Your task to perform on an android device: Go to Yahoo.com Image 0: 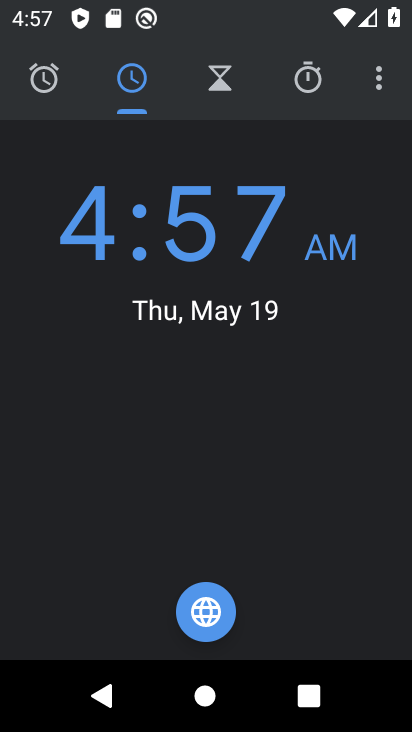
Step 0: press home button
Your task to perform on an android device: Go to Yahoo.com Image 1: 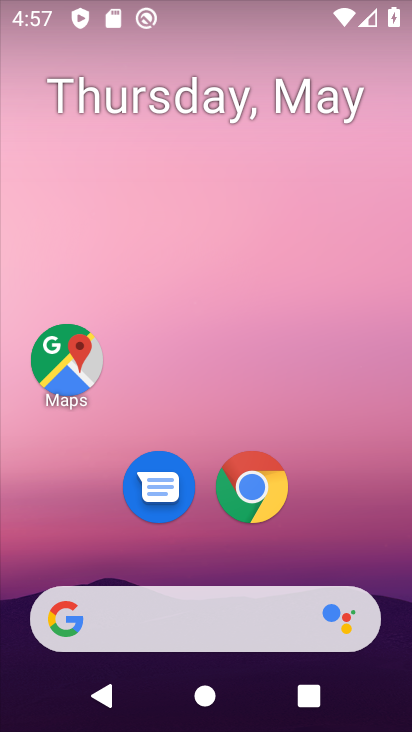
Step 1: click (249, 621)
Your task to perform on an android device: Go to Yahoo.com Image 2: 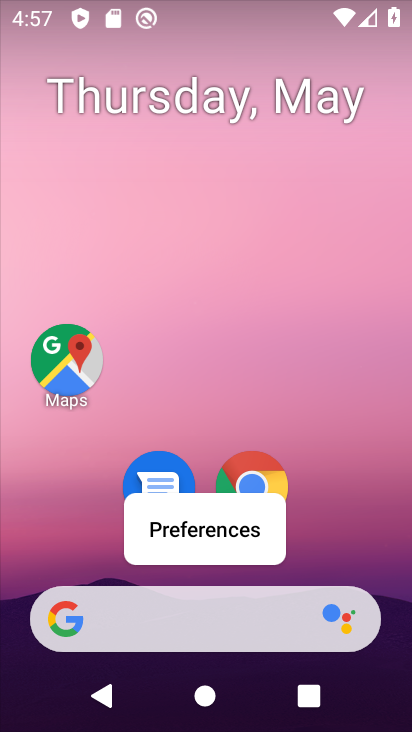
Step 2: click (249, 620)
Your task to perform on an android device: Go to Yahoo.com Image 3: 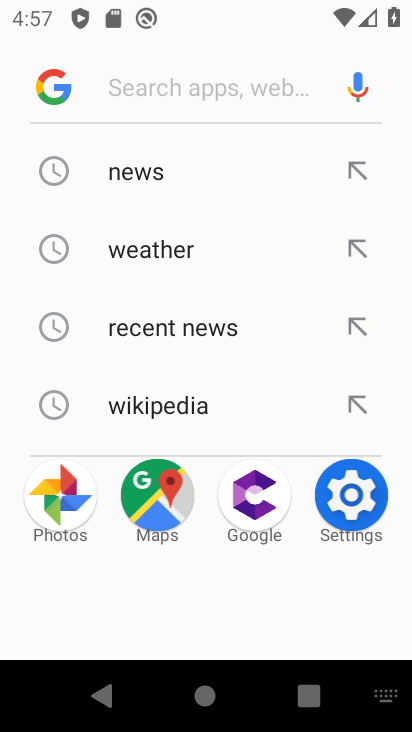
Step 3: type "yahoo.com"
Your task to perform on an android device: Go to Yahoo.com Image 4: 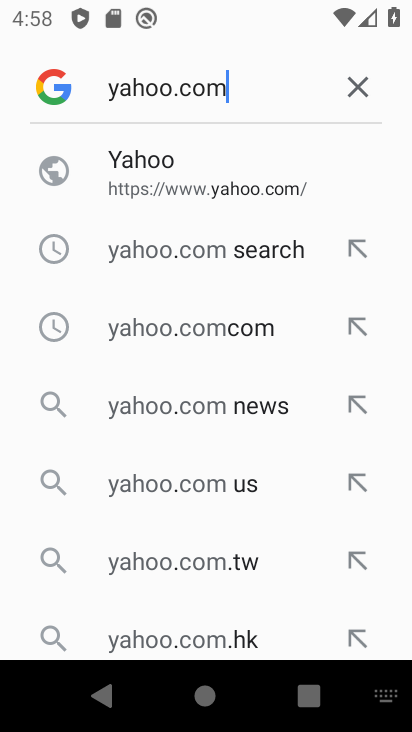
Step 4: click (158, 161)
Your task to perform on an android device: Go to Yahoo.com Image 5: 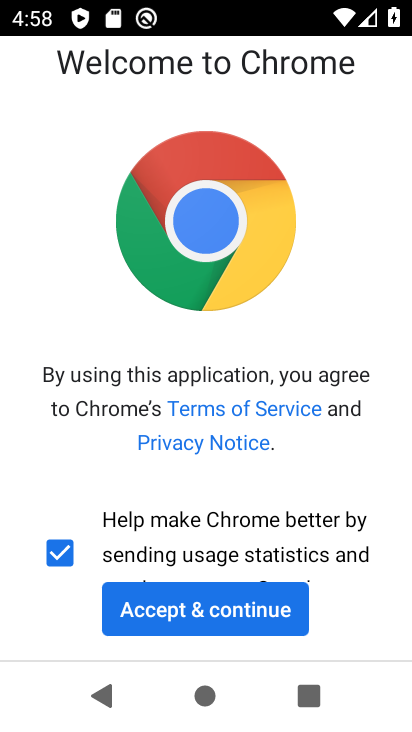
Step 5: click (271, 610)
Your task to perform on an android device: Go to Yahoo.com Image 6: 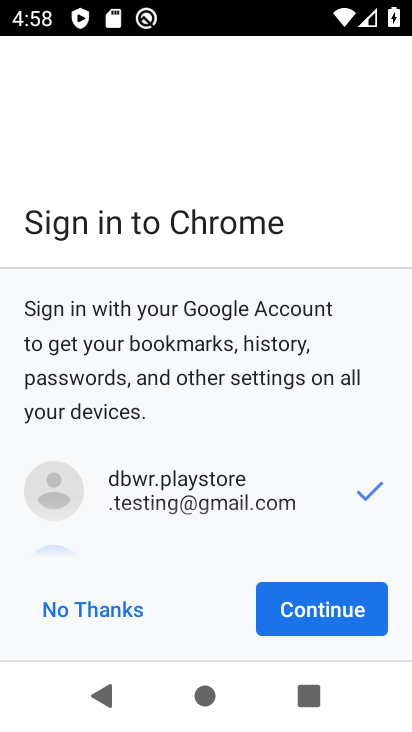
Step 6: click (297, 615)
Your task to perform on an android device: Go to Yahoo.com Image 7: 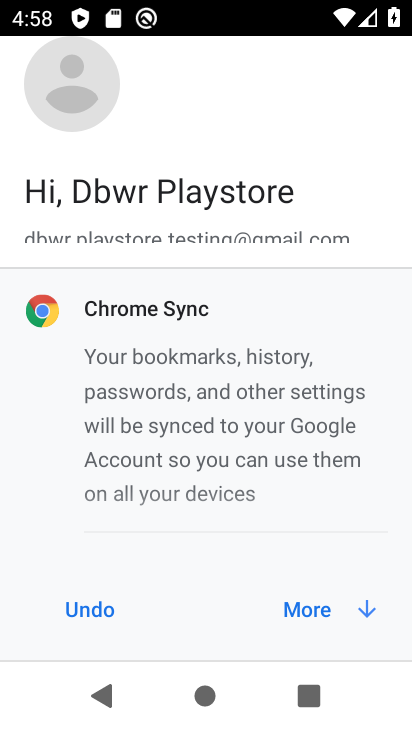
Step 7: click (311, 604)
Your task to perform on an android device: Go to Yahoo.com Image 8: 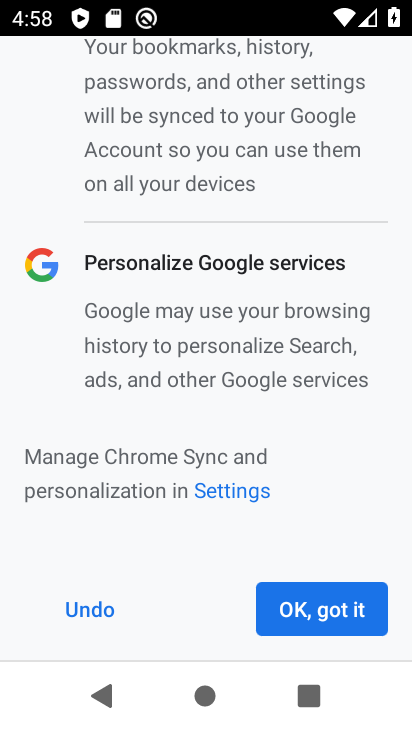
Step 8: click (313, 607)
Your task to perform on an android device: Go to Yahoo.com Image 9: 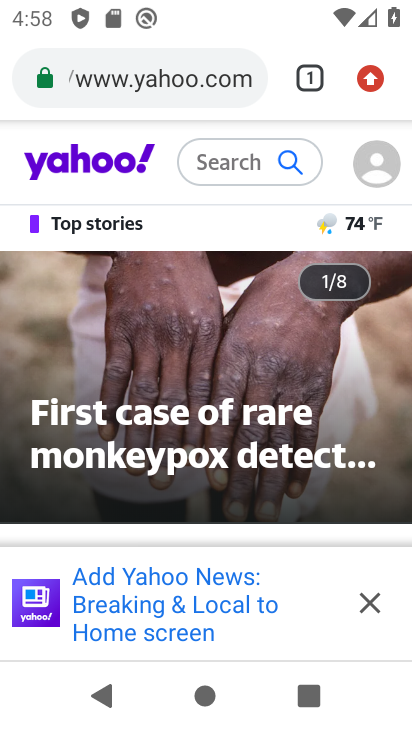
Step 9: task complete